Your task to perform on an android device: What's on my calendar today? Image 0: 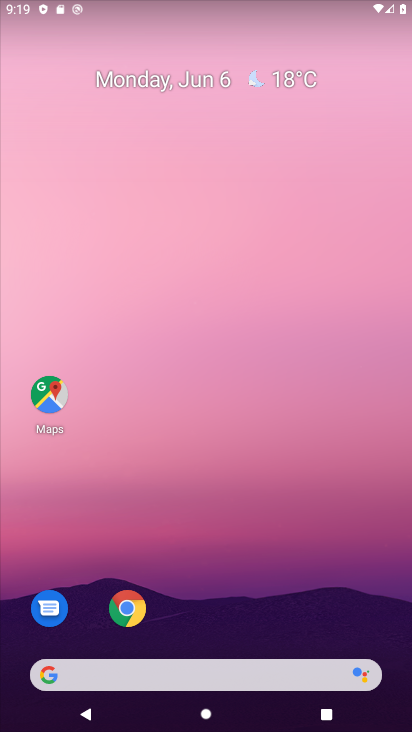
Step 0: click (228, 127)
Your task to perform on an android device: What's on my calendar today? Image 1: 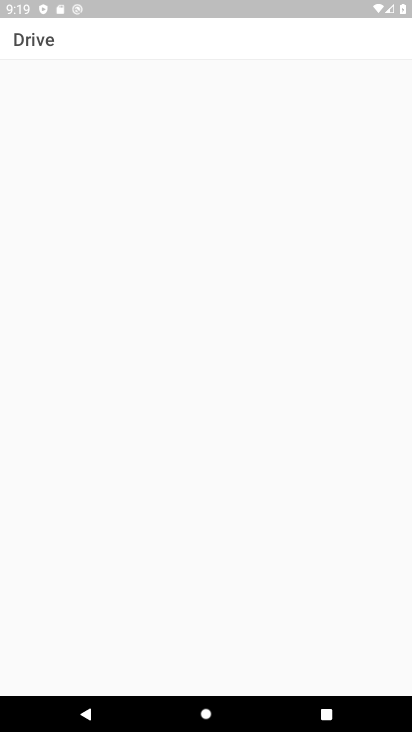
Step 1: press home button
Your task to perform on an android device: What's on my calendar today? Image 2: 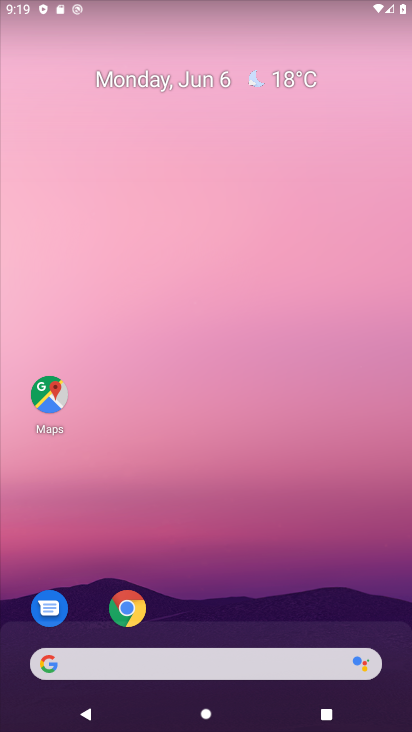
Step 2: drag from (292, 575) to (234, 91)
Your task to perform on an android device: What's on my calendar today? Image 3: 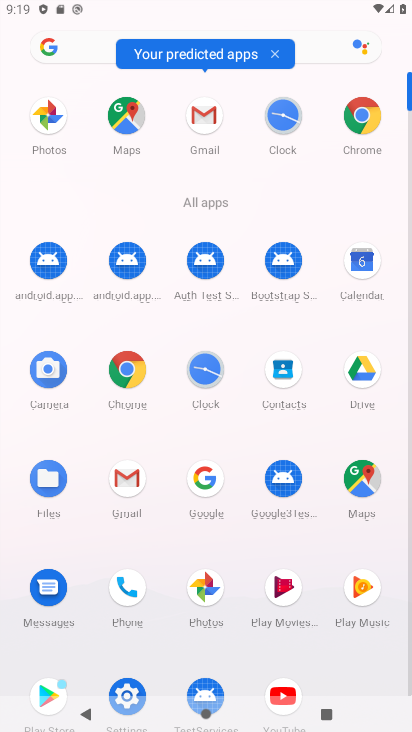
Step 3: click (362, 264)
Your task to perform on an android device: What's on my calendar today? Image 4: 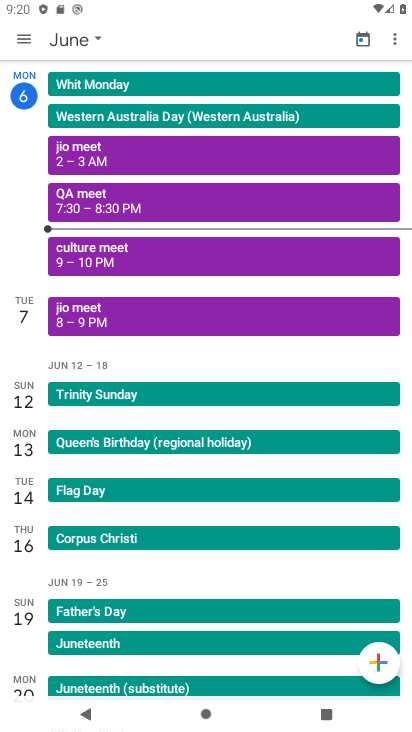
Step 4: task complete